Your task to perform on an android device: Go to Google Image 0: 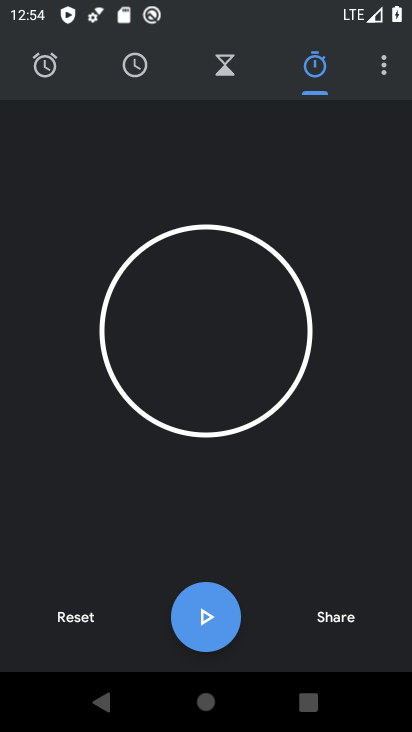
Step 0: press home button
Your task to perform on an android device: Go to Google Image 1: 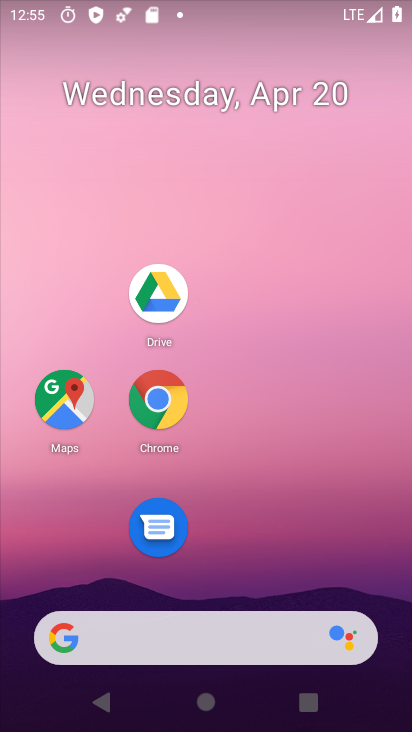
Step 1: drag from (251, 642) to (208, 238)
Your task to perform on an android device: Go to Google Image 2: 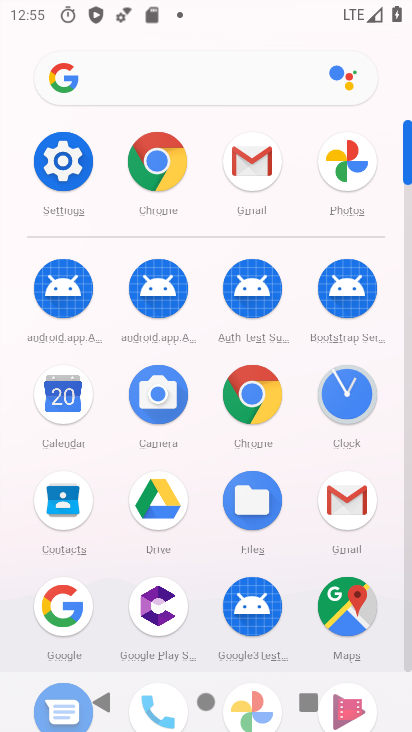
Step 2: click (159, 165)
Your task to perform on an android device: Go to Google Image 3: 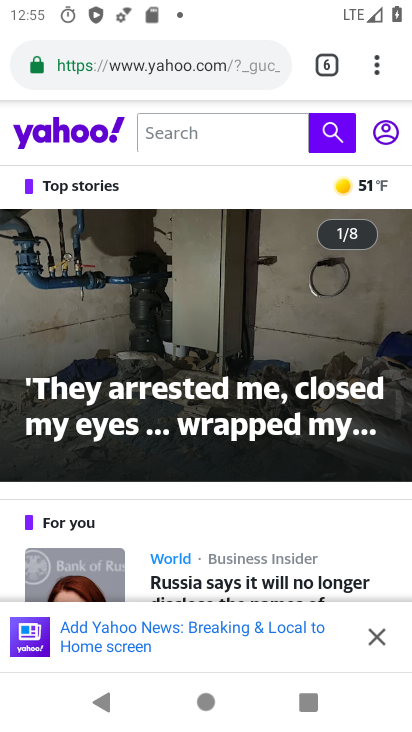
Step 3: click (181, 64)
Your task to perform on an android device: Go to Google Image 4: 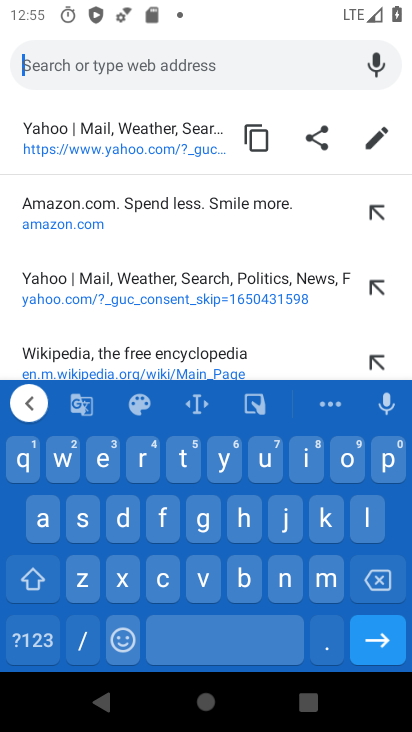
Step 4: click (206, 517)
Your task to perform on an android device: Go to Google Image 5: 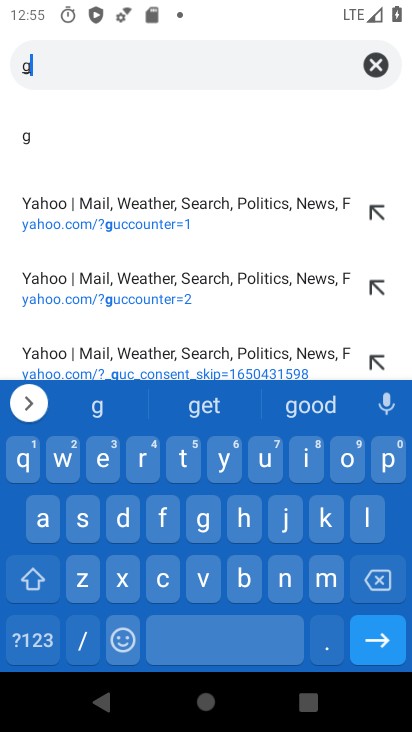
Step 5: click (348, 459)
Your task to perform on an android device: Go to Google Image 6: 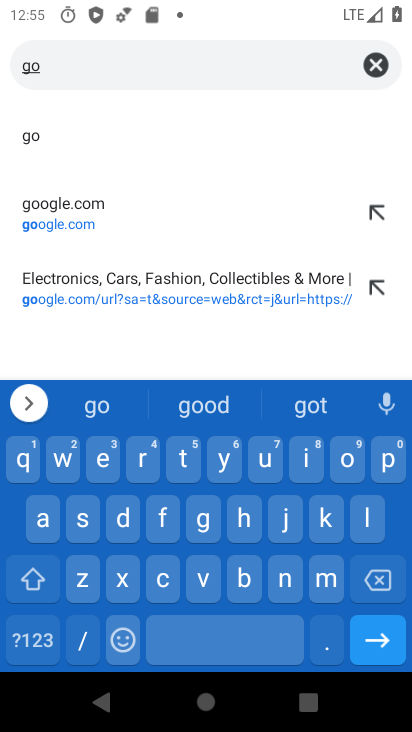
Step 6: drag from (190, 371) to (136, 215)
Your task to perform on an android device: Go to Google Image 7: 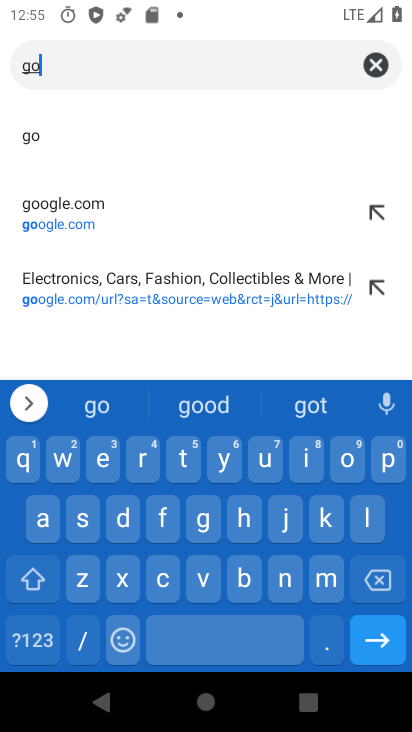
Step 7: click (136, 215)
Your task to perform on an android device: Go to Google Image 8: 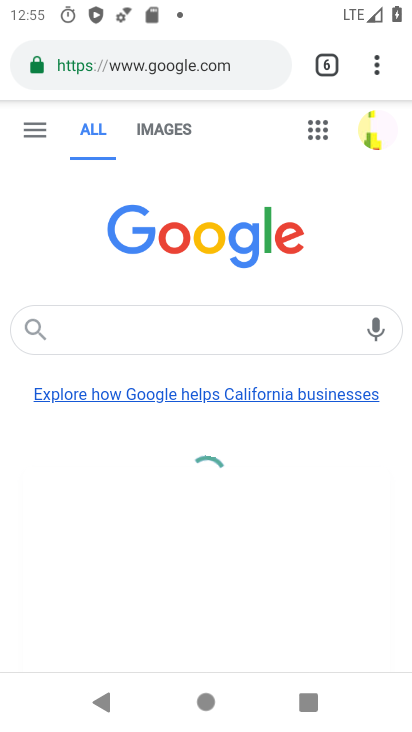
Step 8: task complete